Your task to perform on an android device: turn on bluetooth scan Image 0: 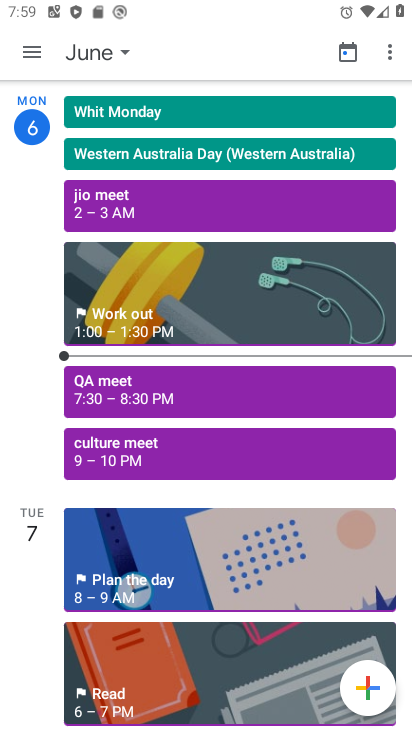
Step 0: press home button
Your task to perform on an android device: turn on bluetooth scan Image 1: 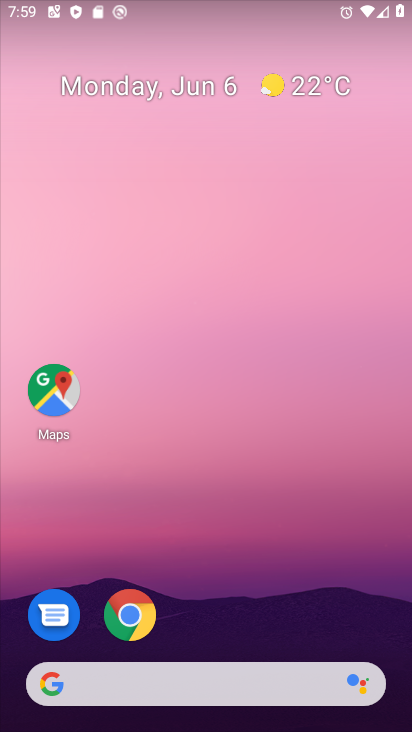
Step 1: drag from (408, 589) to (381, 15)
Your task to perform on an android device: turn on bluetooth scan Image 2: 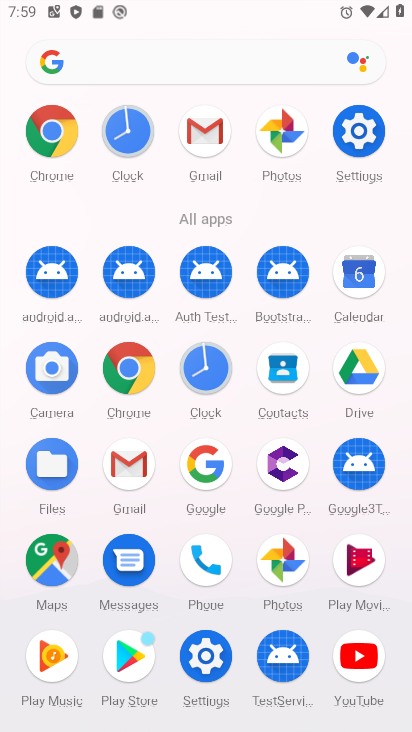
Step 2: click (368, 134)
Your task to perform on an android device: turn on bluetooth scan Image 3: 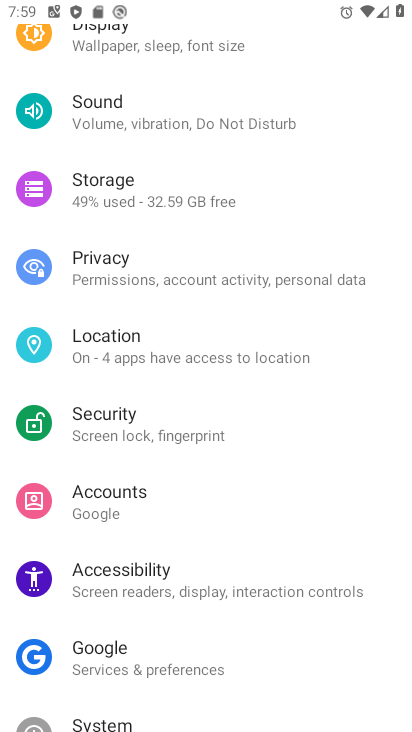
Step 3: click (95, 333)
Your task to perform on an android device: turn on bluetooth scan Image 4: 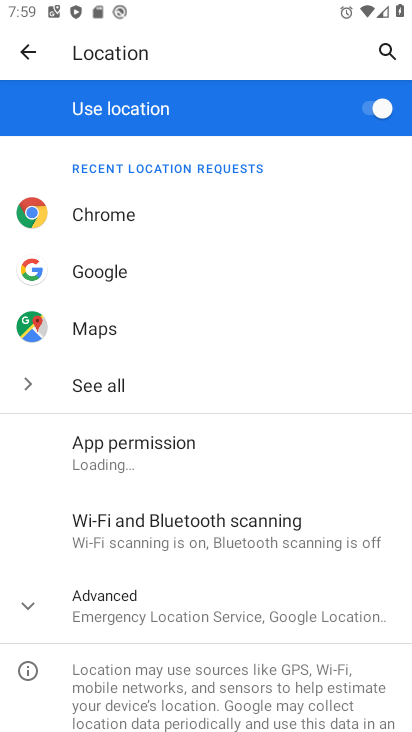
Step 4: click (87, 551)
Your task to perform on an android device: turn on bluetooth scan Image 5: 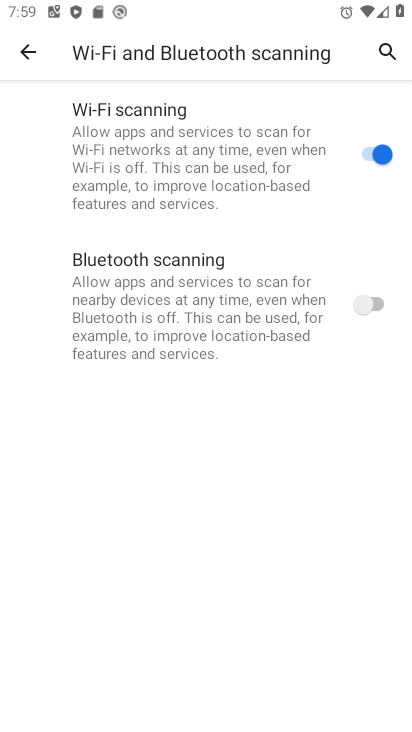
Step 5: click (373, 304)
Your task to perform on an android device: turn on bluetooth scan Image 6: 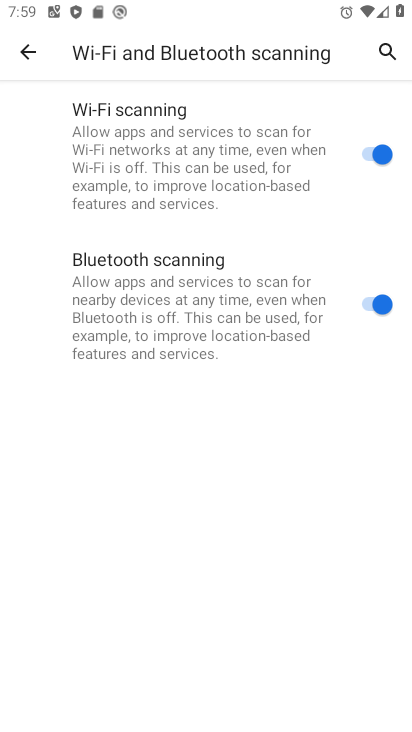
Step 6: task complete